Your task to perform on an android device: Search for the best rated phone case for the iPhone 8. Image 0: 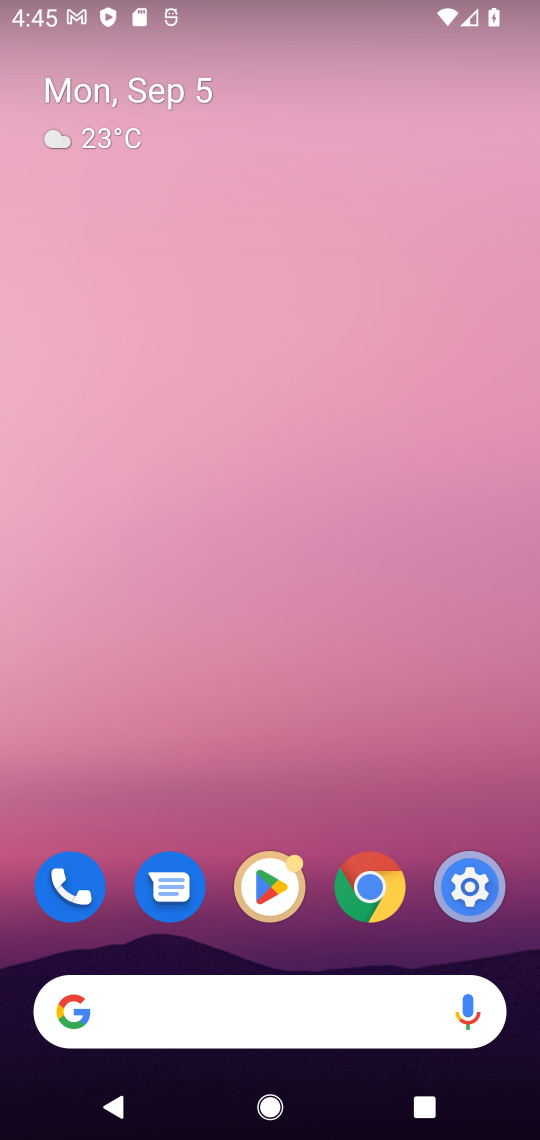
Step 0: drag from (204, 975) to (204, 73)
Your task to perform on an android device: Search for the best rated phone case for the iPhone 8. Image 1: 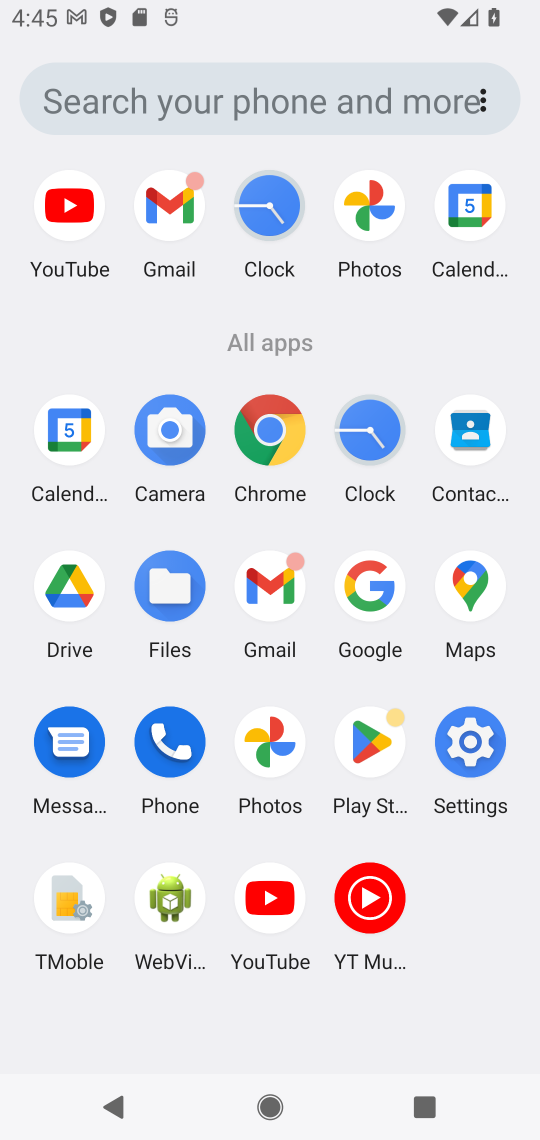
Step 1: click (359, 582)
Your task to perform on an android device: Search for the best rated phone case for the iPhone 8. Image 2: 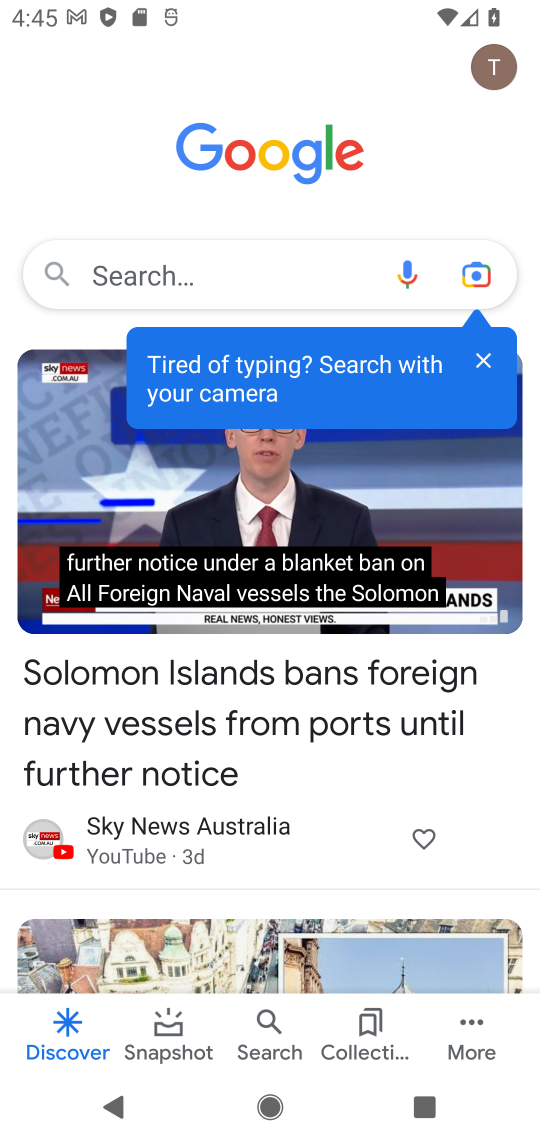
Step 2: type "best rated phone case for the iPhone 8."
Your task to perform on an android device: Search for the best rated phone case for the iPhone 8. Image 3: 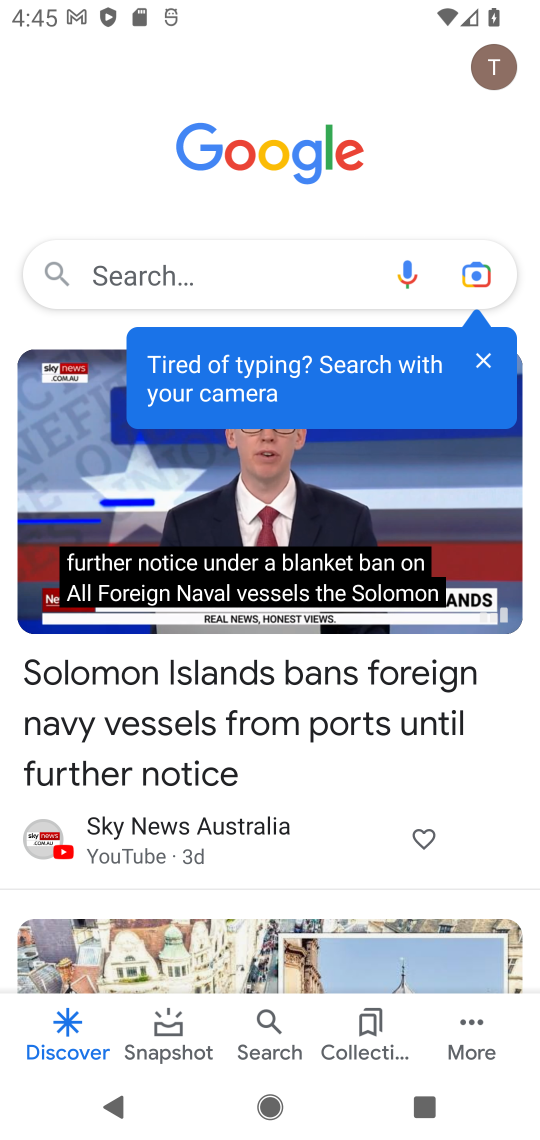
Step 3: click (184, 292)
Your task to perform on an android device: Search for the best rated phone case for the iPhone 8. Image 4: 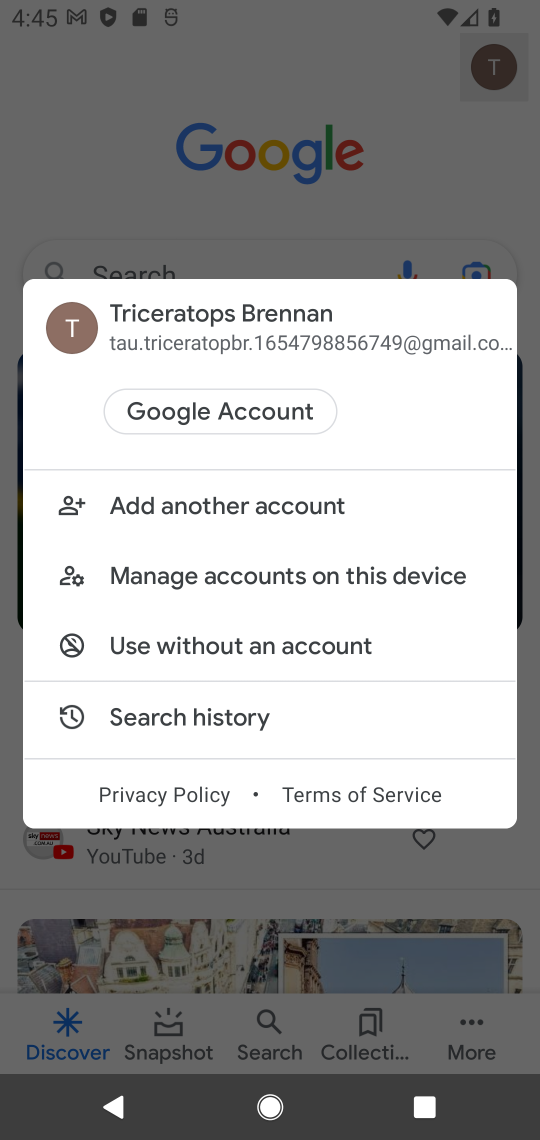
Step 4: click (116, 154)
Your task to perform on an android device: Search for the best rated phone case for the iPhone 8. Image 5: 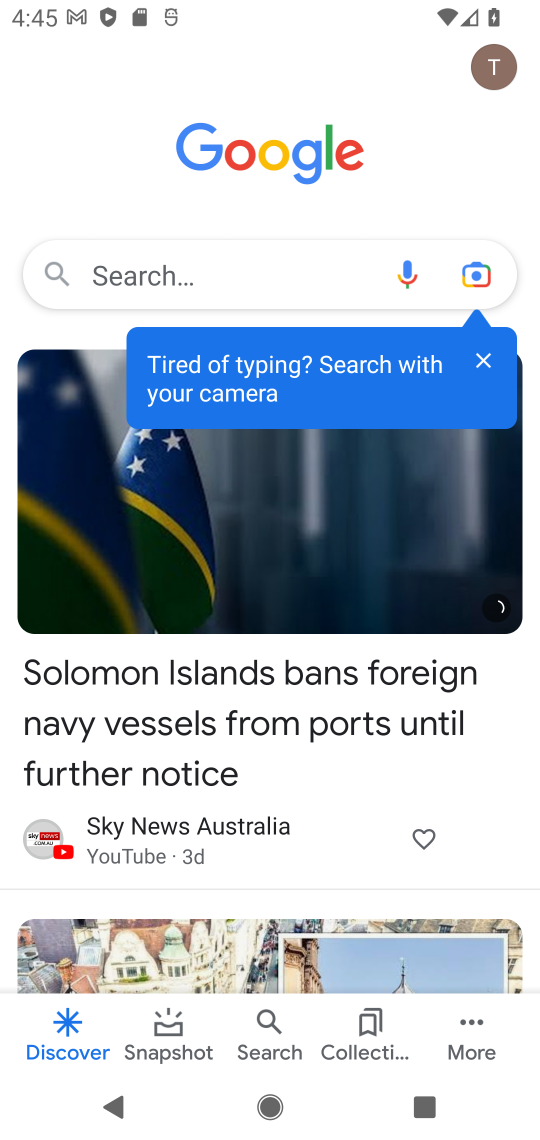
Step 5: click (119, 270)
Your task to perform on an android device: Search for the best rated phone case for the iPhone 8. Image 6: 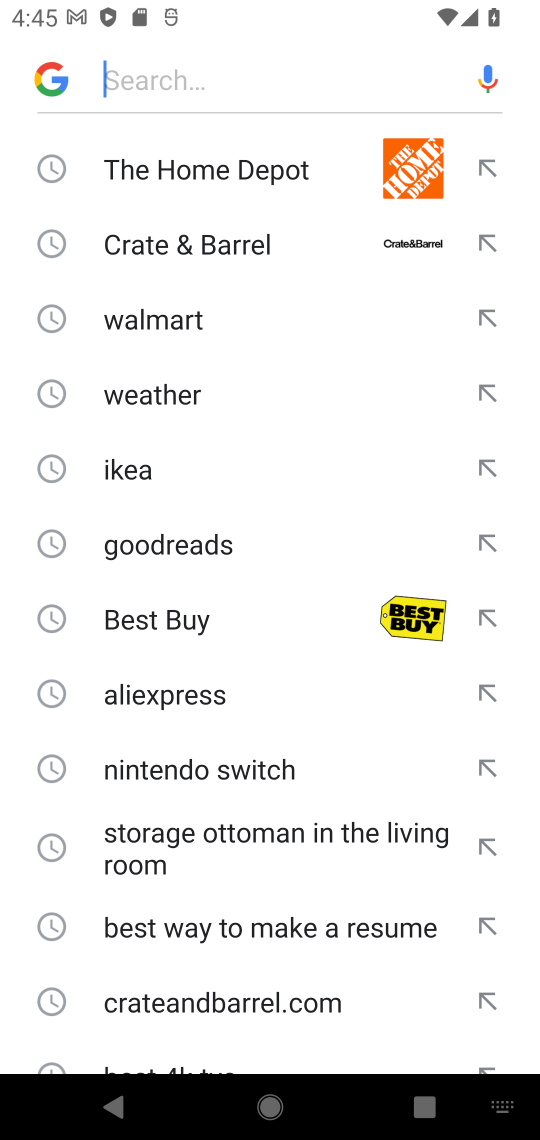
Step 6: type "best rated phone case for the iPhone 8."
Your task to perform on an android device: Search for the best rated phone case for the iPhone 8. Image 7: 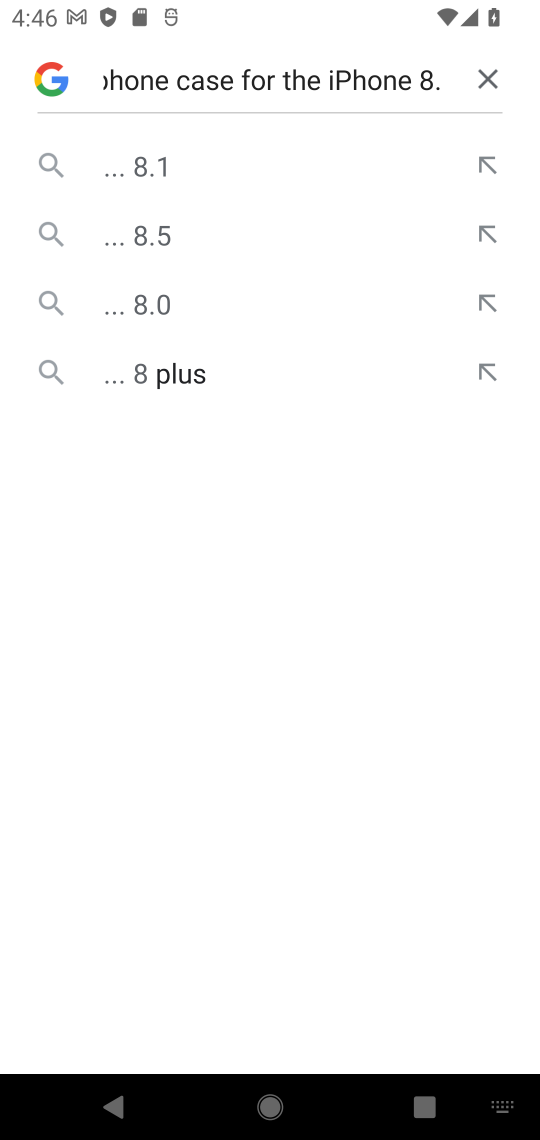
Step 7: click (165, 374)
Your task to perform on an android device: Search for the best rated phone case for the iPhone 8. Image 8: 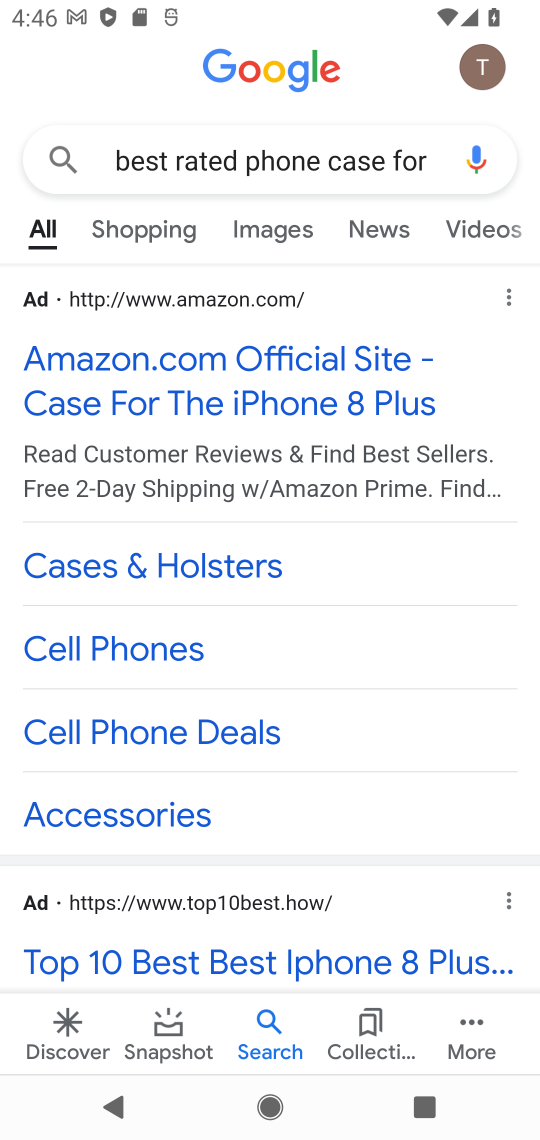
Step 8: click (148, 384)
Your task to perform on an android device: Search for the best rated phone case for the iPhone 8. Image 9: 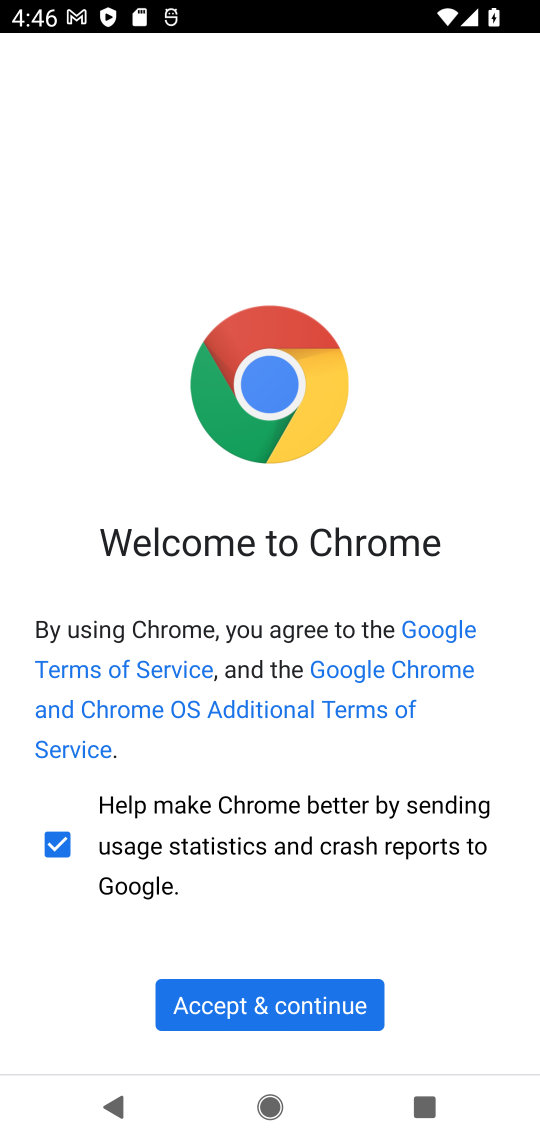
Step 9: click (238, 1006)
Your task to perform on an android device: Search for the best rated phone case for the iPhone 8. Image 10: 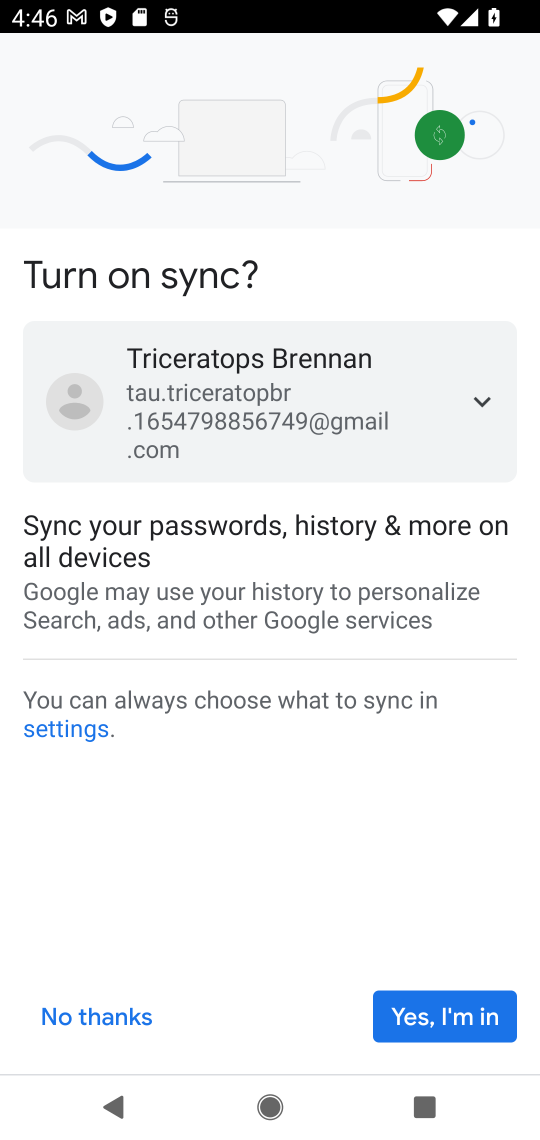
Step 10: click (449, 1026)
Your task to perform on an android device: Search for the best rated phone case for the iPhone 8. Image 11: 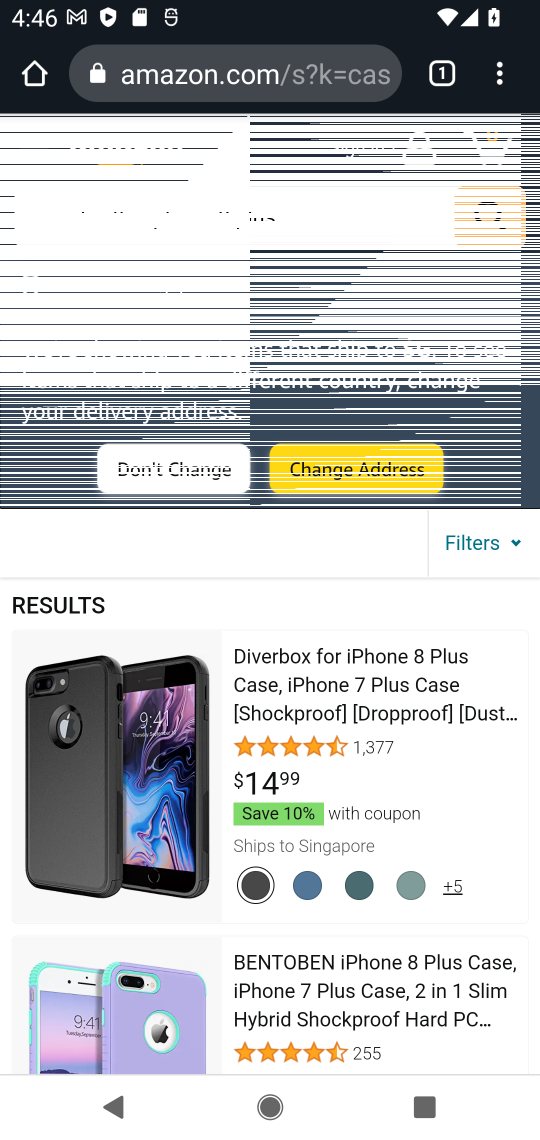
Step 11: task complete